Your task to perform on an android device: turn on data saver in the chrome app Image 0: 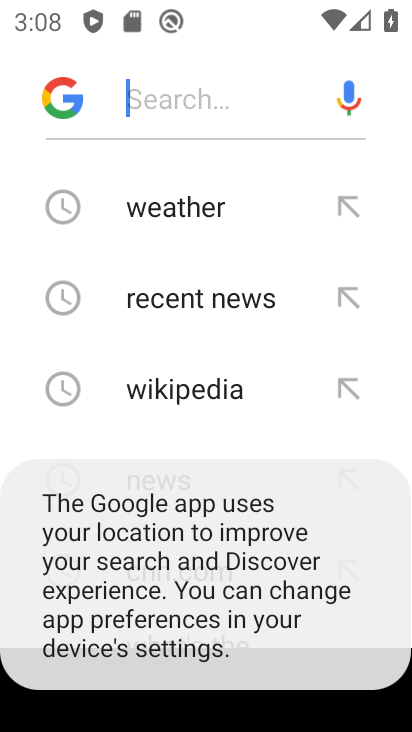
Step 0: press home button
Your task to perform on an android device: turn on data saver in the chrome app Image 1: 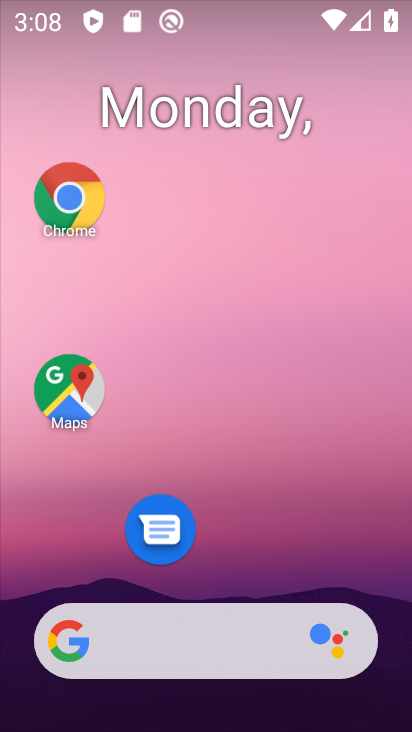
Step 1: drag from (252, 608) to (259, 127)
Your task to perform on an android device: turn on data saver in the chrome app Image 2: 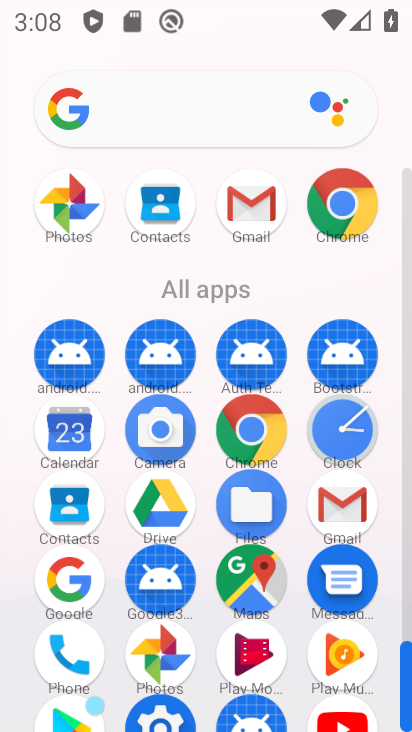
Step 2: click (356, 232)
Your task to perform on an android device: turn on data saver in the chrome app Image 3: 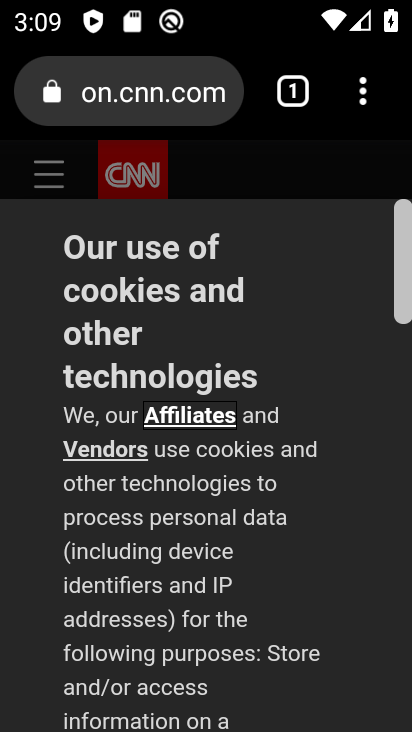
Step 3: click (362, 100)
Your task to perform on an android device: turn on data saver in the chrome app Image 4: 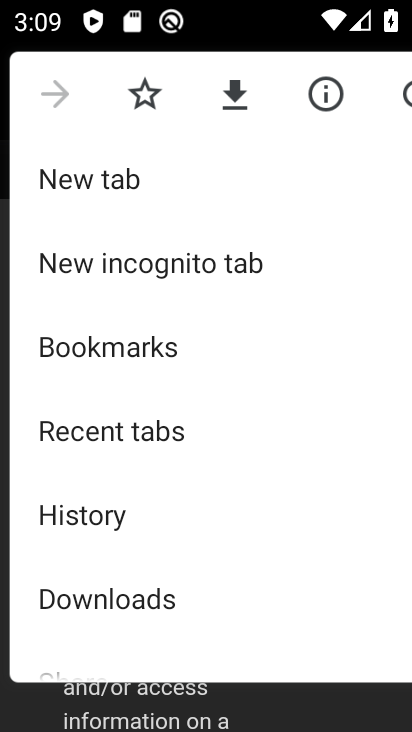
Step 4: drag from (222, 528) to (255, 103)
Your task to perform on an android device: turn on data saver in the chrome app Image 5: 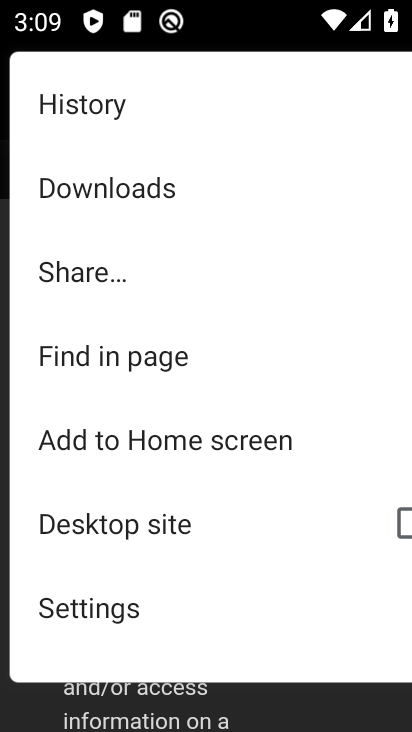
Step 5: drag from (183, 603) to (200, 262)
Your task to perform on an android device: turn on data saver in the chrome app Image 6: 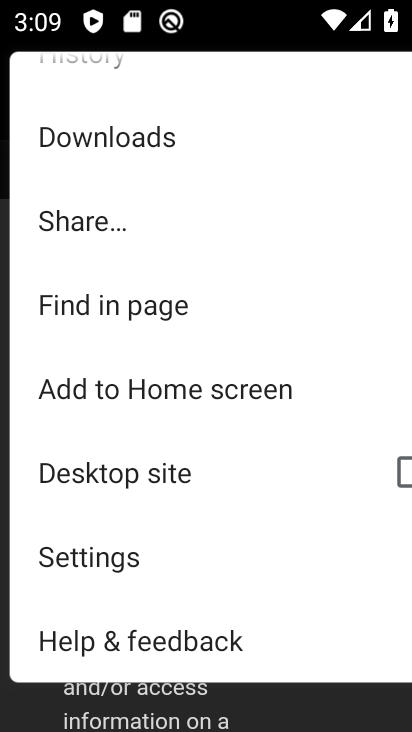
Step 6: click (125, 567)
Your task to perform on an android device: turn on data saver in the chrome app Image 7: 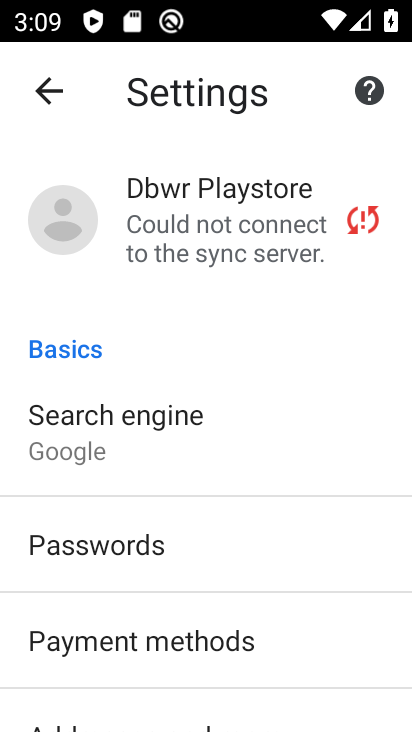
Step 7: drag from (121, 637) to (182, 247)
Your task to perform on an android device: turn on data saver in the chrome app Image 8: 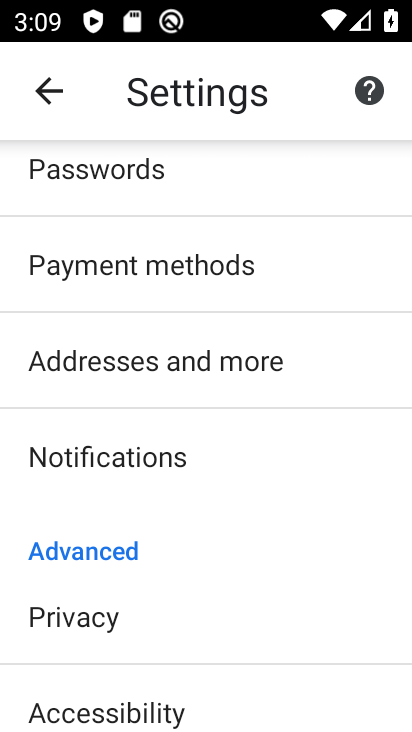
Step 8: drag from (147, 614) to (147, 286)
Your task to perform on an android device: turn on data saver in the chrome app Image 9: 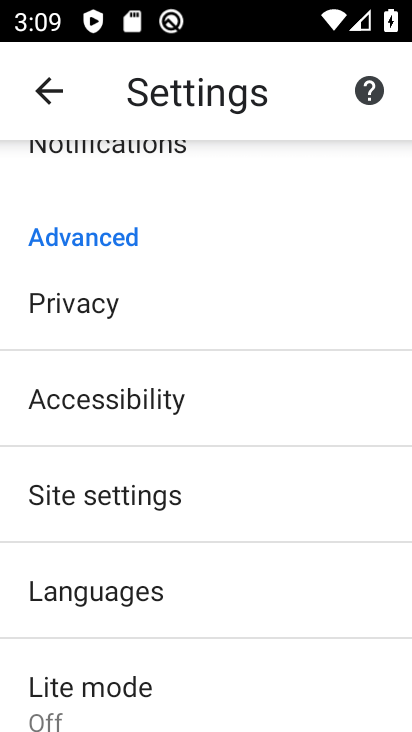
Step 9: drag from (163, 588) to (159, 322)
Your task to perform on an android device: turn on data saver in the chrome app Image 10: 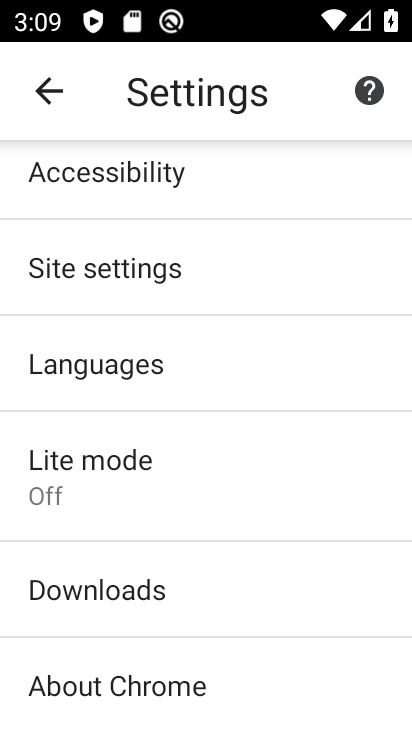
Step 10: click (142, 488)
Your task to perform on an android device: turn on data saver in the chrome app Image 11: 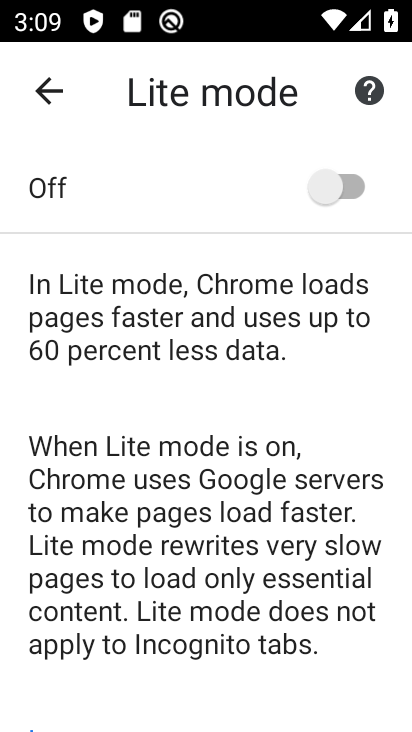
Step 11: click (337, 200)
Your task to perform on an android device: turn on data saver in the chrome app Image 12: 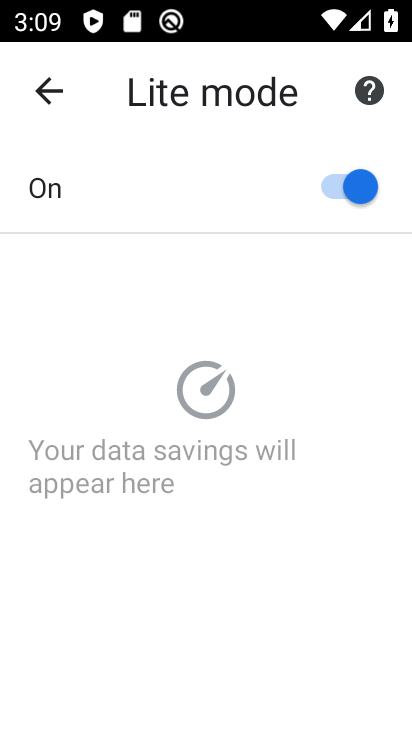
Step 12: task complete